Your task to perform on an android device: Open sound settings Image 0: 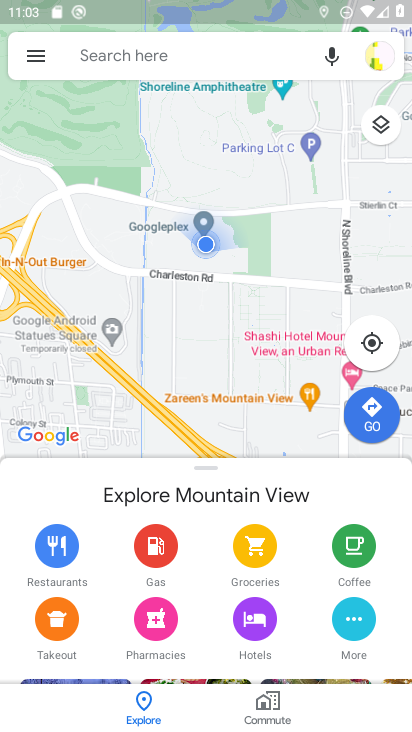
Step 0: click (35, 49)
Your task to perform on an android device: Open sound settings Image 1: 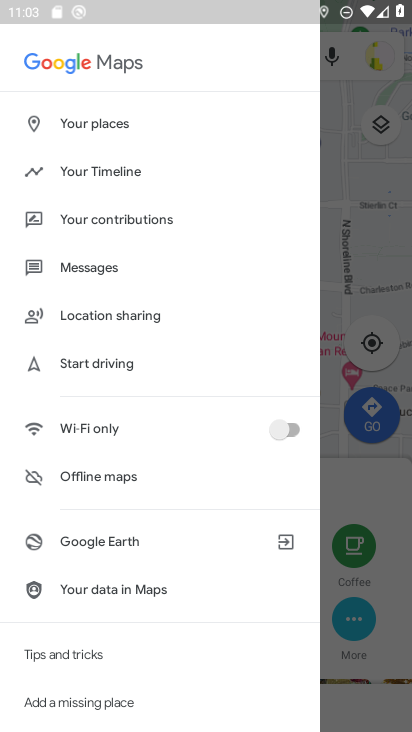
Step 1: press home button
Your task to perform on an android device: Open sound settings Image 2: 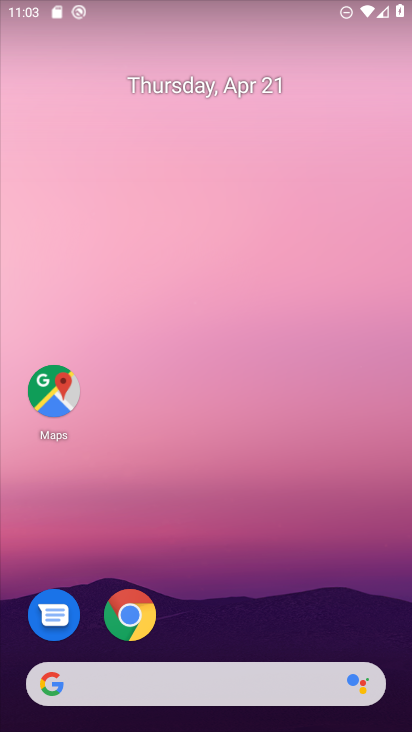
Step 2: drag from (232, 634) to (279, 62)
Your task to perform on an android device: Open sound settings Image 3: 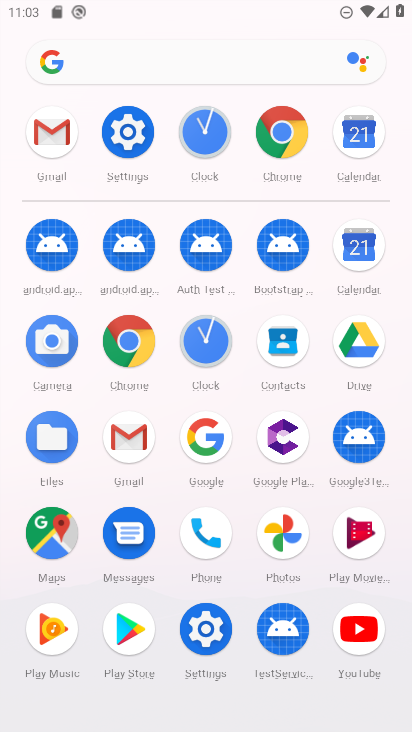
Step 3: click (128, 128)
Your task to perform on an android device: Open sound settings Image 4: 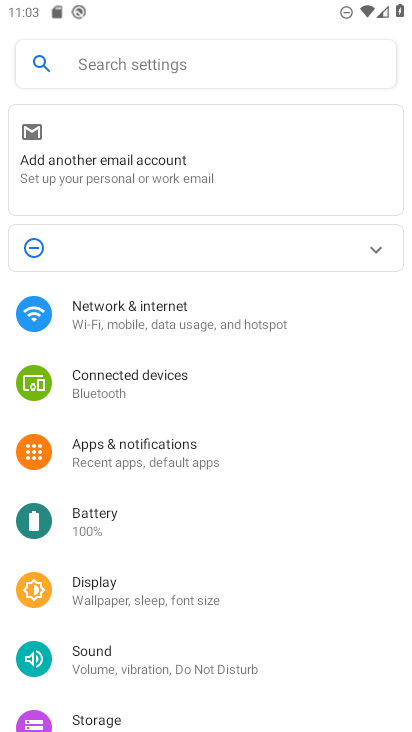
Step 4: click (126, 645)
Your task to perform on an android device: Open sound settings Image 5: 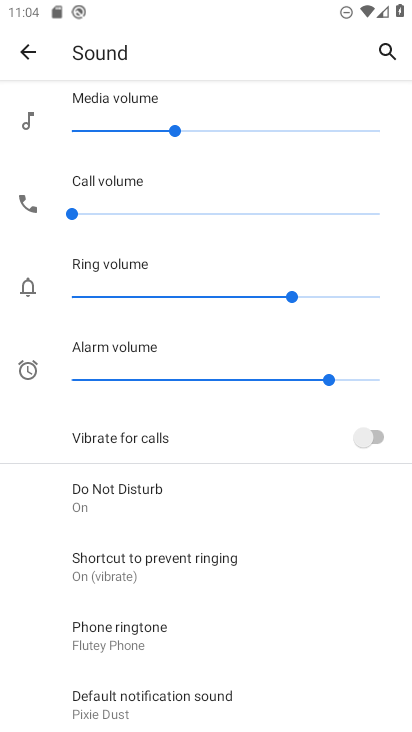
Step 5: task complete